Your task to perform on an android device: open device folders in google photos Image 0: 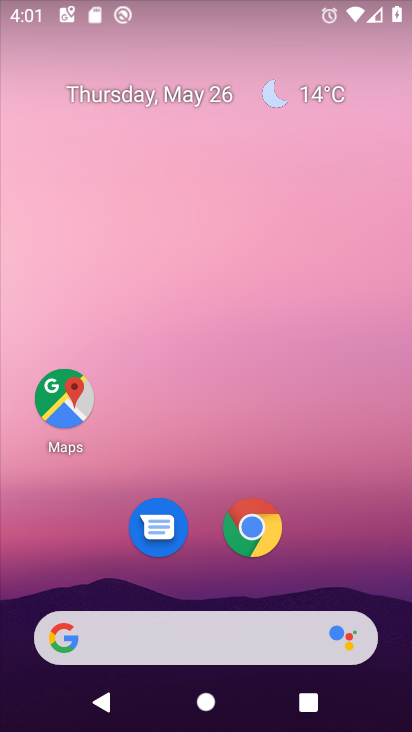
Step 0: drag from (359, 556) to (237, 69)
Your task to perform on an android device: open device folders in google photos Image 1: 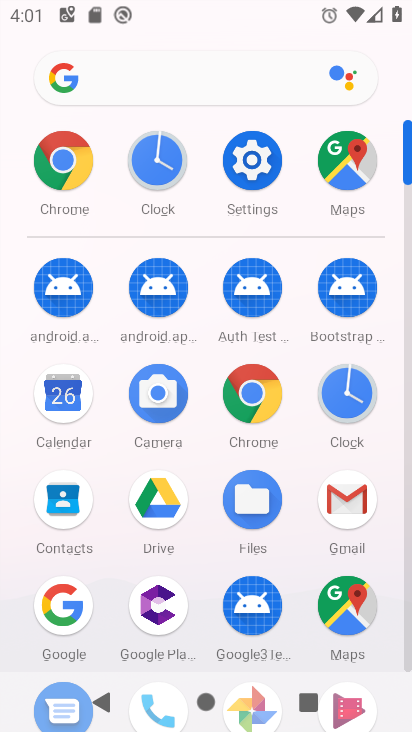
Step 1: click (411, 654)
Your task to perform on an android device: open device folders in google photos Image 2: 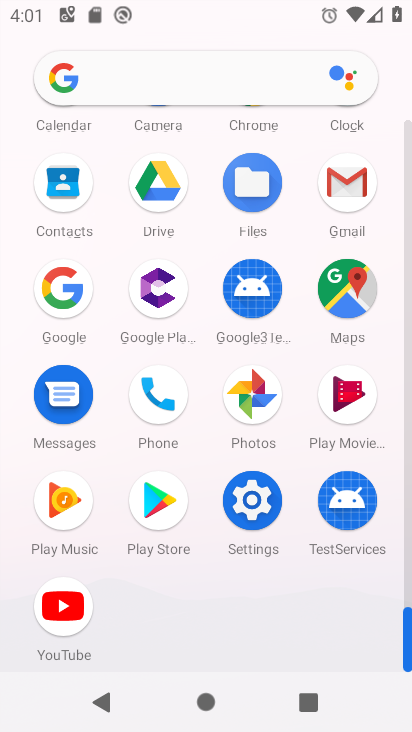
Step 2: click (255, 388)
Your task to perform on an android device: open device folders in google photos Image 3: 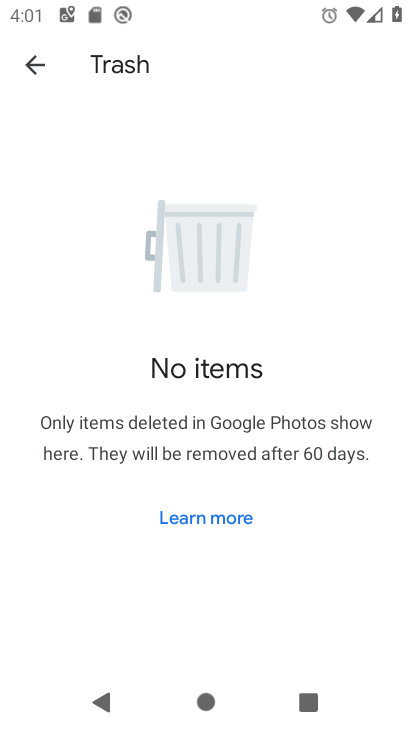
Step 3: click (37, 62)
Your task to perform on an android device: open device folders in google photos Image 4: 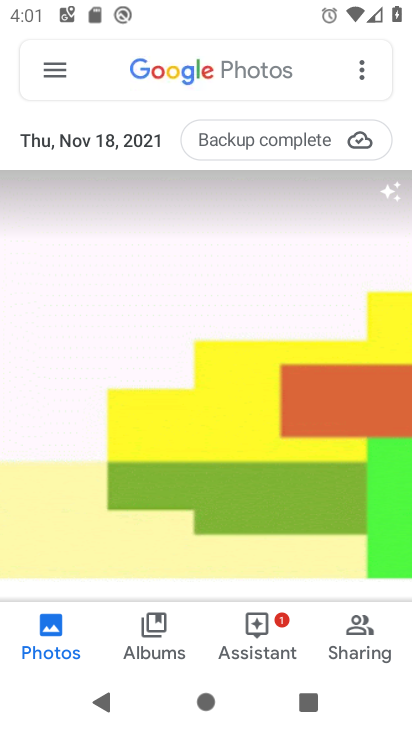
Step 4: click (37, 62)
Your task to perform on an android device: open device folders in google photos Image 5: 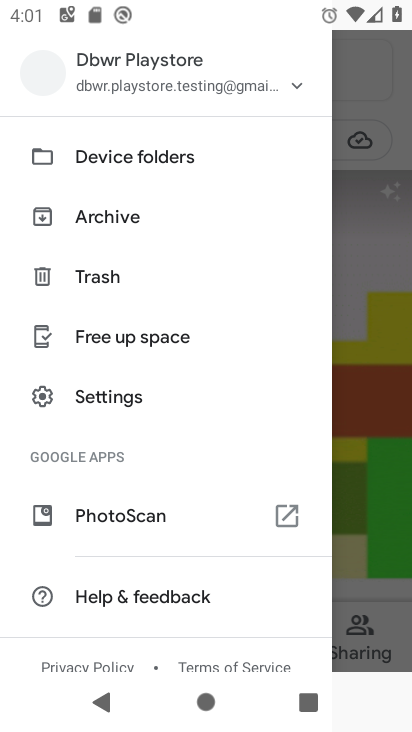
Step 5: click (79, 168)
Your task to perform on an android device: open device folders in google photos Image 6: 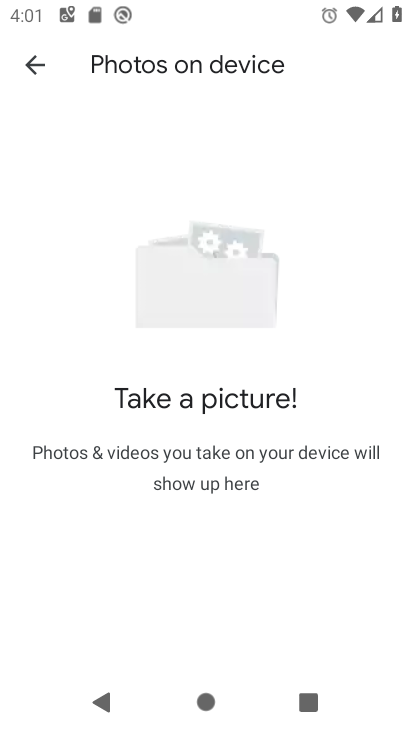
Step 6: task complete